Your task to perform on an android device: Open network settings Image 0: 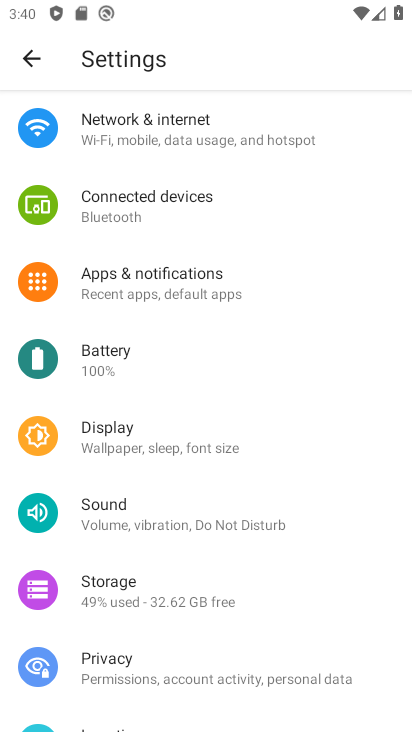
Step 0: click (174, 144)
Your task to perform on an android device: Open network settings Image 1: 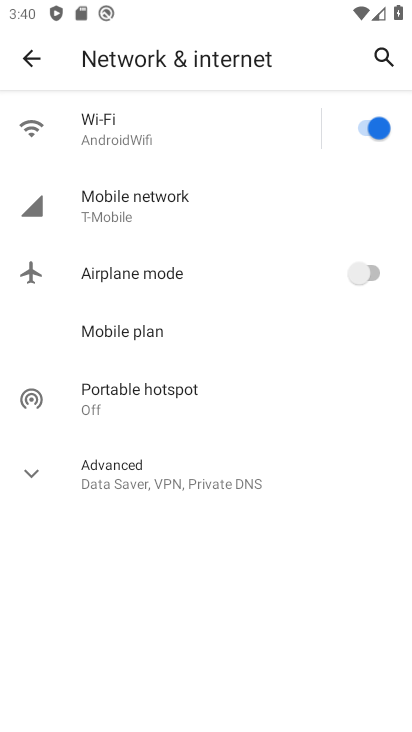
Step 1: click (107, 200)
Your task to perform on an android device: Open network settings Image 2: 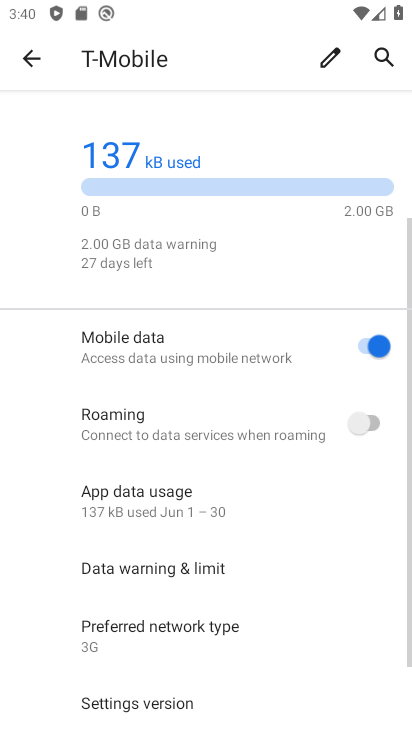
Step 2: task complete